Your task to perform on an android device: Open calendar and show me the third week of next month Image 0: 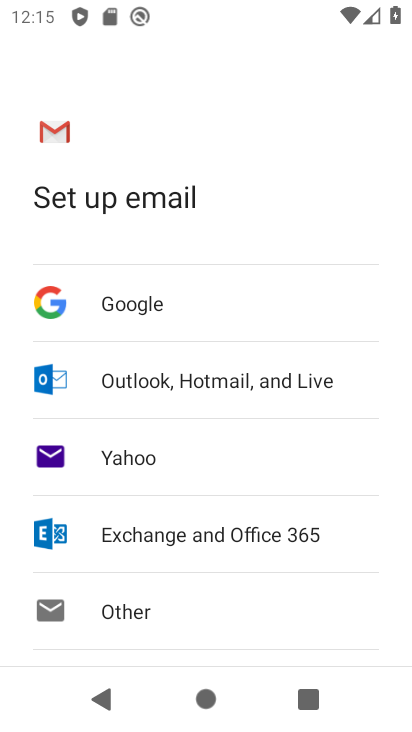
Step 0: press home button
Your task to perform on an android device: Open calendar and show me the third week of next month Image 1: 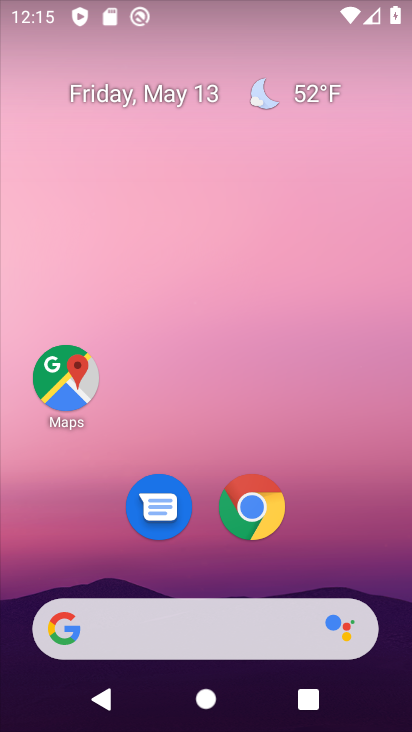
Step 1: drag from (229, 601) to (307, 110)
Your task to perform on an android device: Open calendar and show me the third week of next month Image 2: 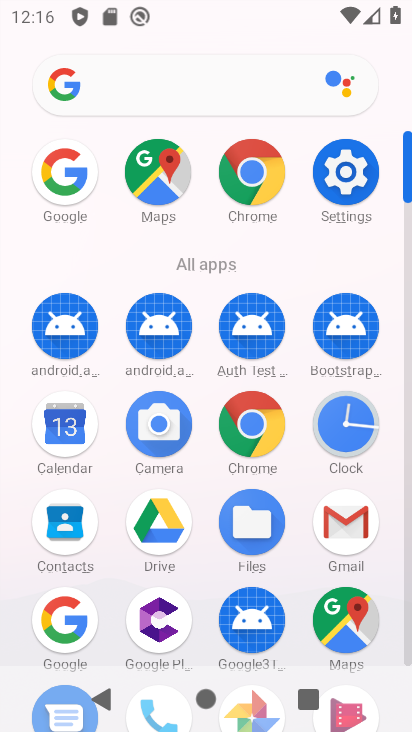
Step 2: click (72, 437)
Your task to perform on an android device: Open calendar and show me the third week of next month Image 3: 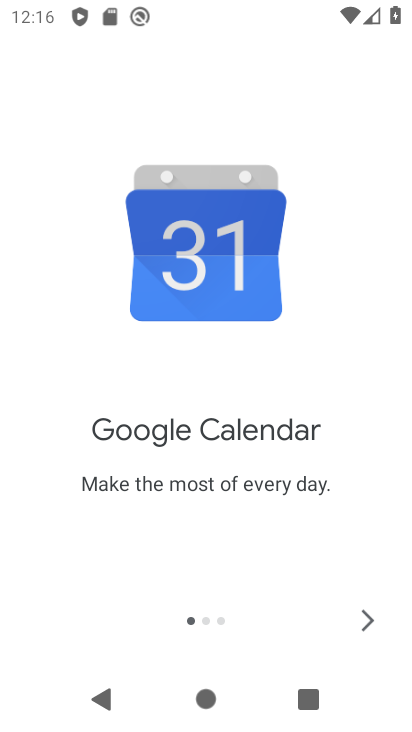
Step 3: click (367, 618)
Your task to perform on an android device: Open calendar and show me the third week of next month Image 4: 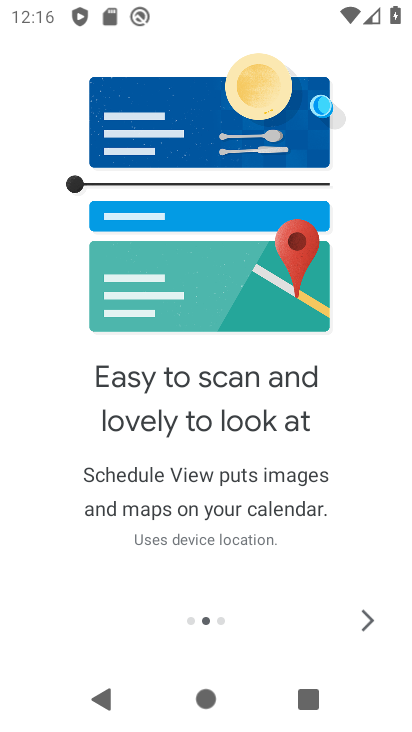
Step 4: click (362, 622)
Your task to perform on an android device: Open calendar and show me the third week of next month Image 5: 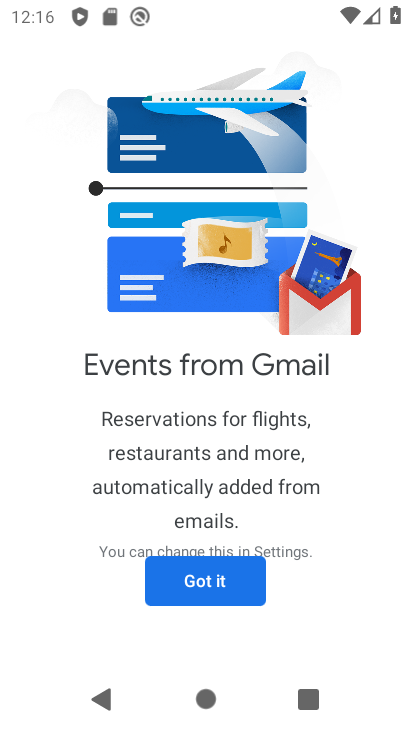
Step 5: click (225, 579)
Your task to perform on an android device: Open calendar and show me the third week of next month Image 6: 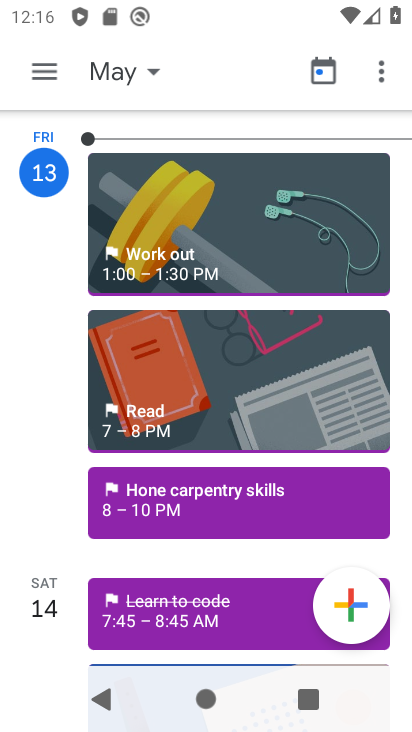
Step 6: click (124, 68)
Your task to perform on an android device: Open calendar and show me the third week of next month Image 7: 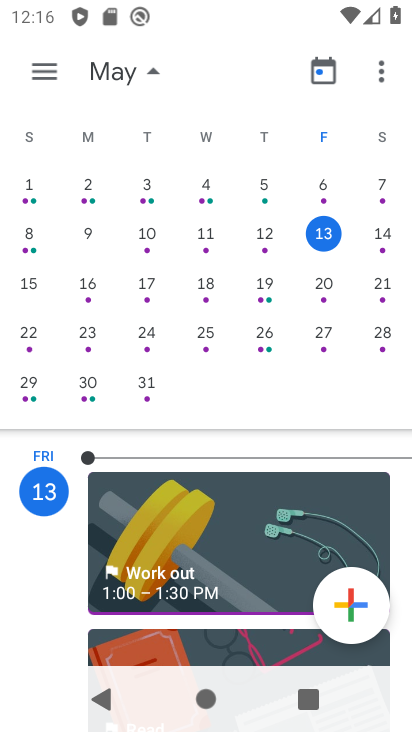
Step 7: drag from (372, 305) to (7, 433)
Your task to perform on an android device: Open calendar and show me the third week of next month Image 8: 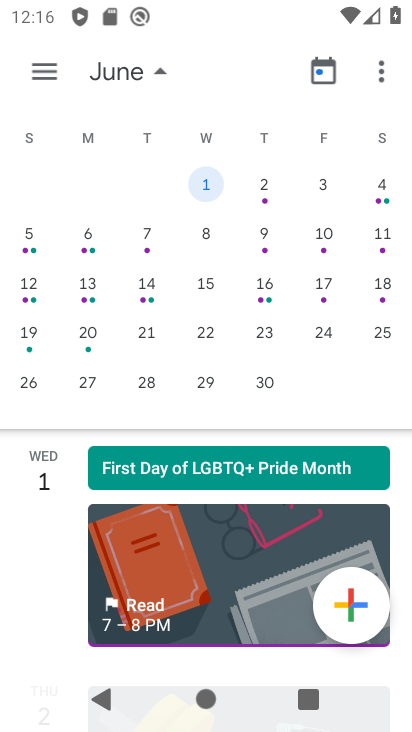
Step 8: click (29, 287)
Your task to perform on an android device: Open calendar and show me the third week of next month Image 9: 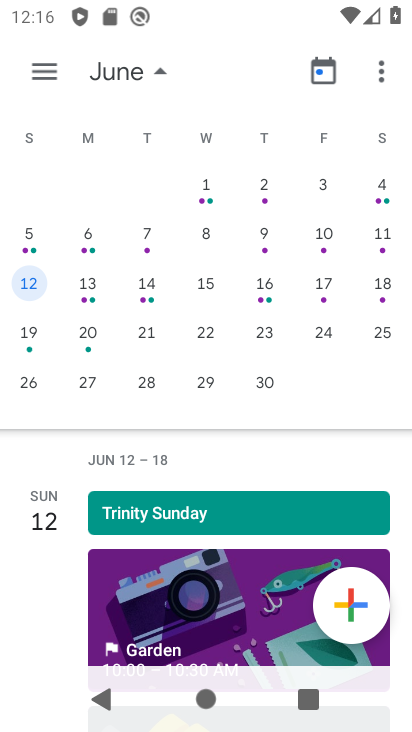
Step 9: task complete